Your task to perform on an android device: open app "Fetch Rewards" Image 0: 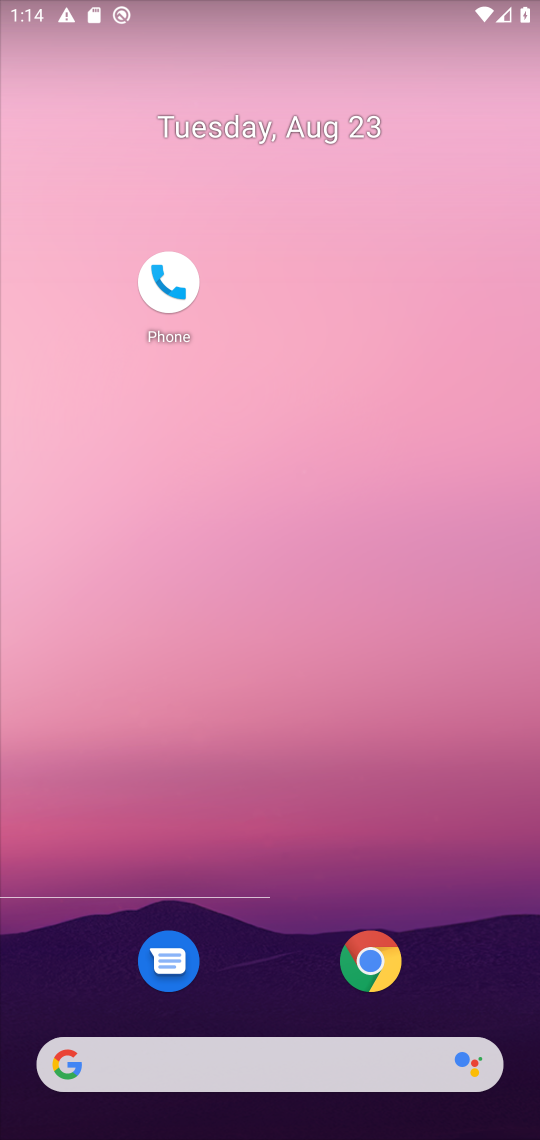
Step 0: drag from (283, 989) to (286, 431)
Your task to perform on an android device: open app "Fetch Rewards" Image 1: 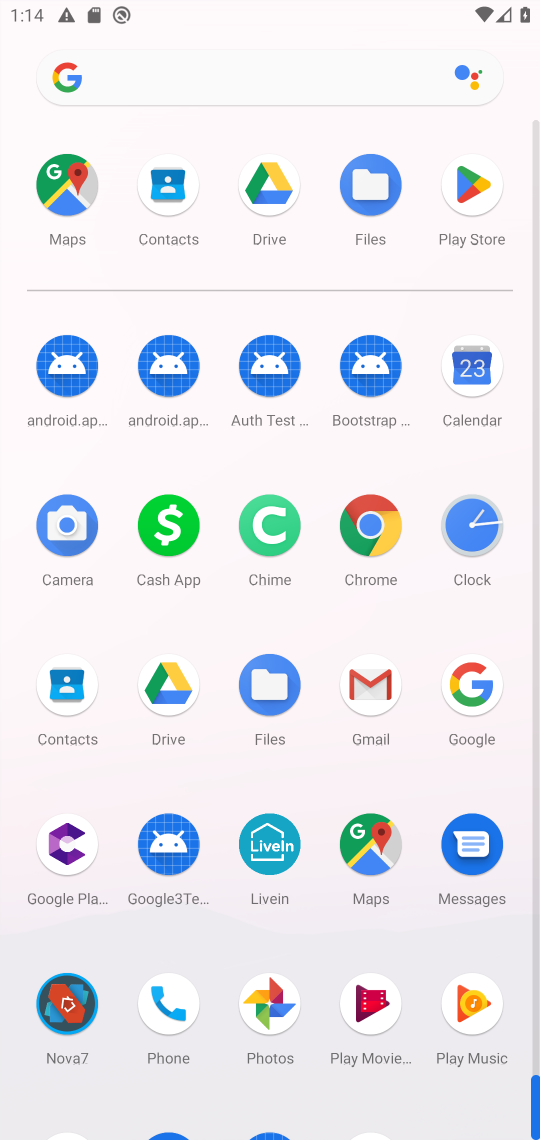
Step 1: click (477, 171)
Your task to perform on an android device: open app "Fetch Rewards" Image 2: 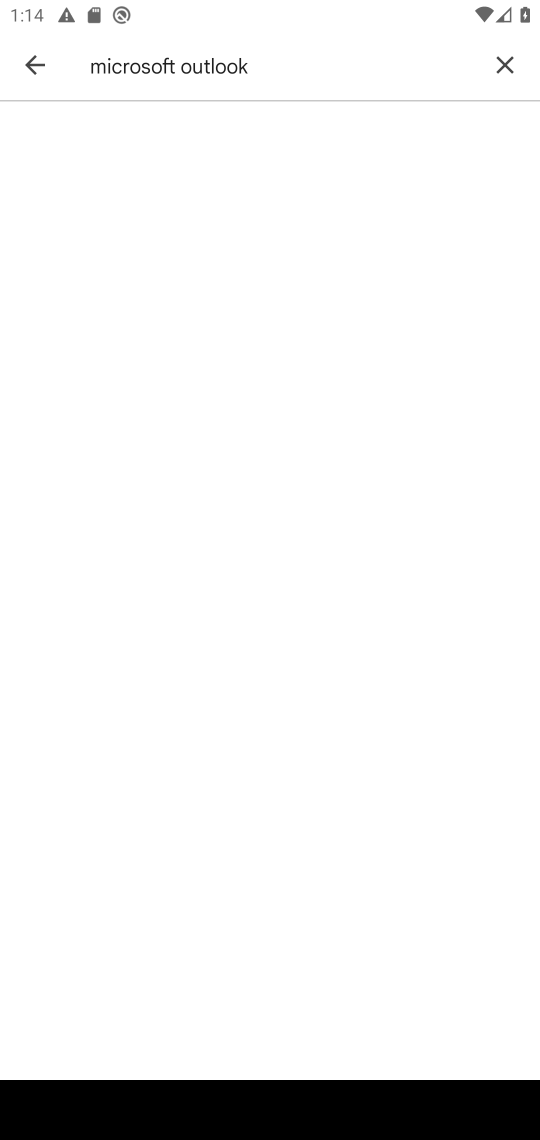
Step 2: click (501, 60)
Your task to perform on an android device: open app "Fetch Rewards" Image 3: 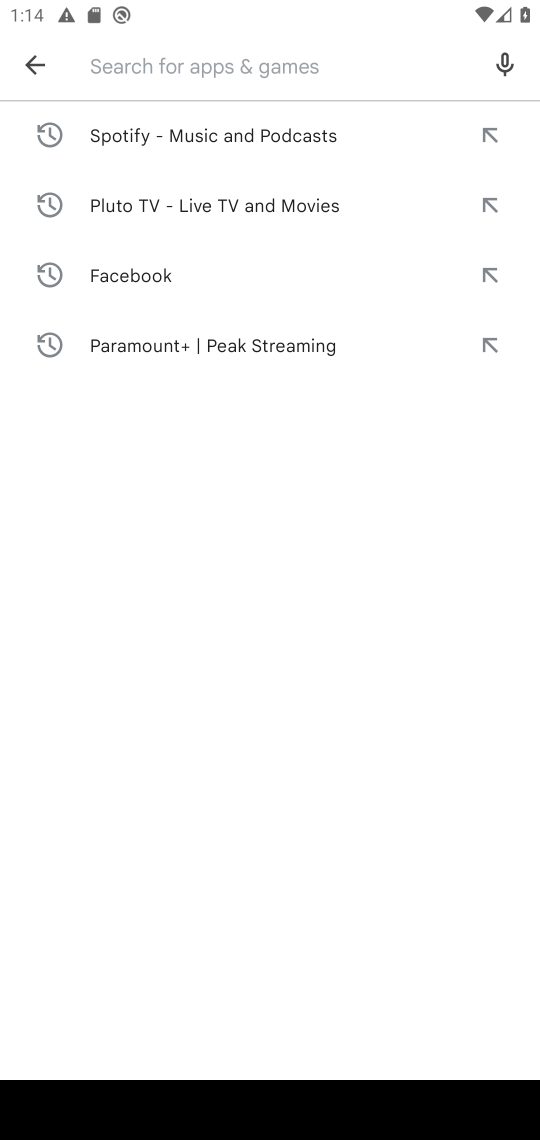
Step 3: type "fetch tv"
Your task to perform on an android device: open app "Fetch Rewards" Image 4: 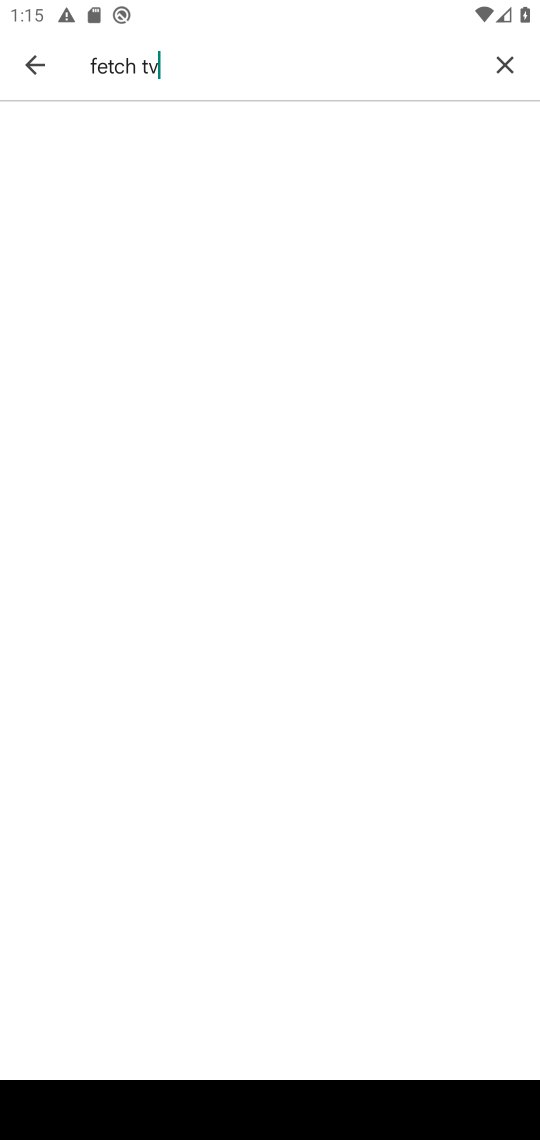
Step 4: click (260, 128)
Your task to perform on an android device: open app "Fetch Rewards" Image 5: 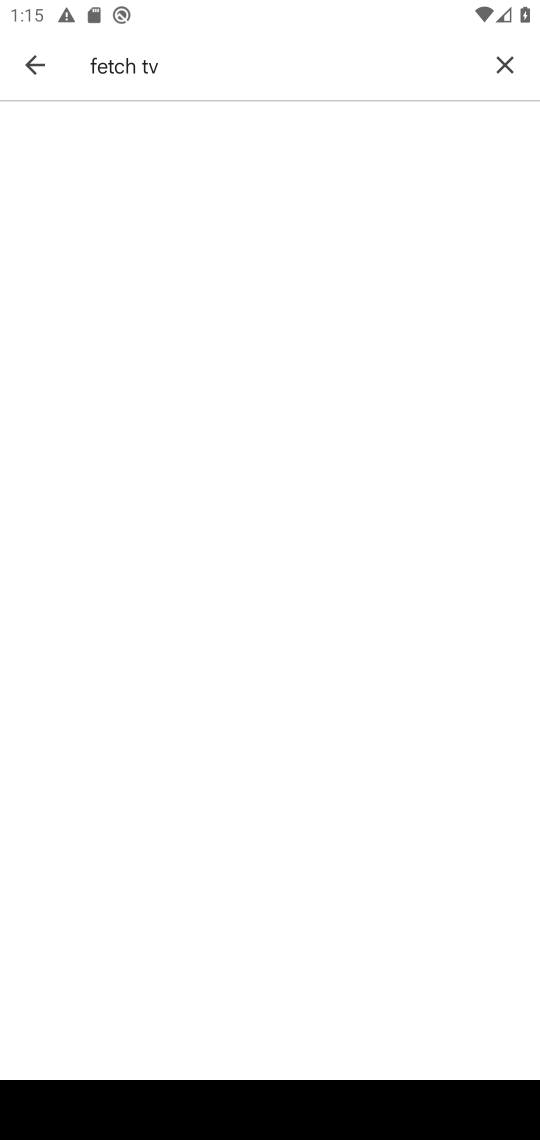
Step 5: task complete